Your task to perform on an android device: set the timer Image 0: 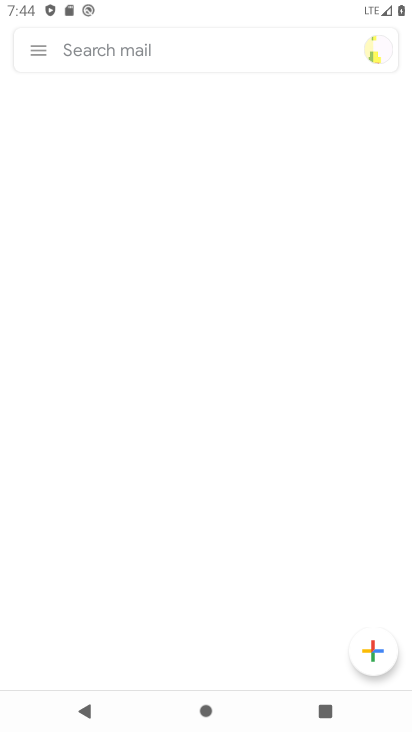
Step 0: press home button
Your task to perform on an android device: set the timer Image 1: 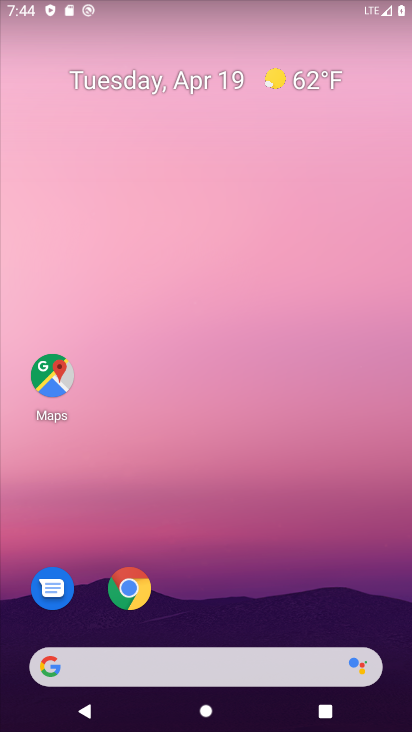
Step 1: drag from (269, 575) to (137, 55)
Your task to perform on an android device: set the timer Image 2: 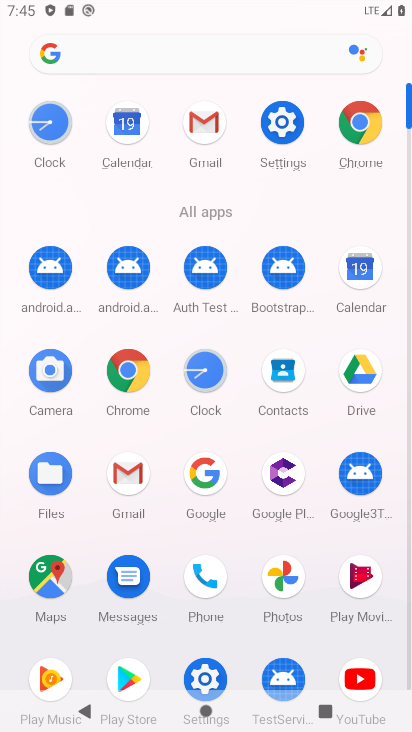
Step 2: click (204, 368)
Your task to perform on an android device: set the timer Image 3: 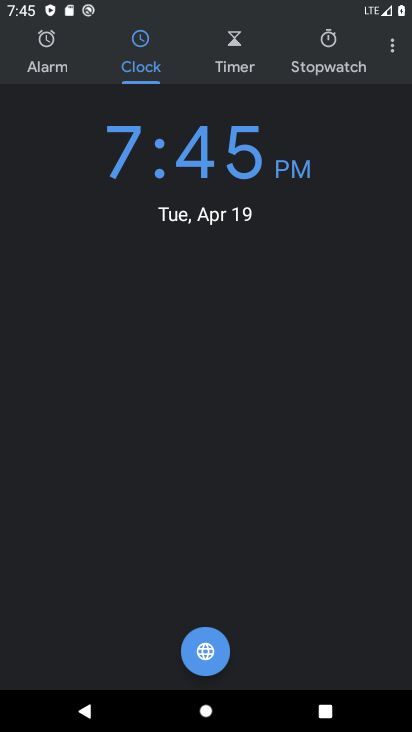
Step 3: click (233, 48)
Your task to perform on an android device: set the timer Image 4: 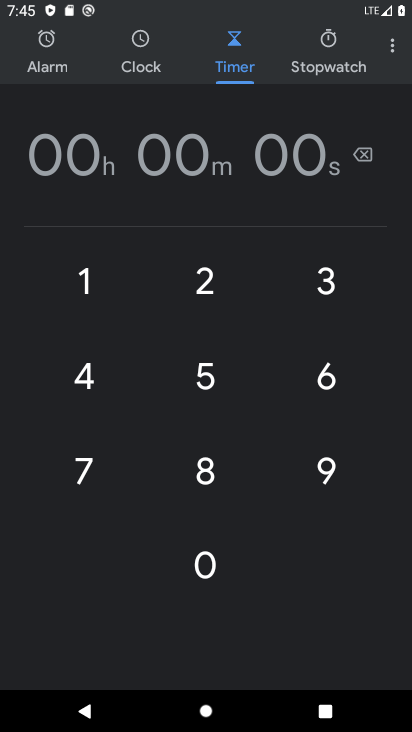
Step 4: click (207, 573)
Your task to perform on an android device: set the timer Image 5: 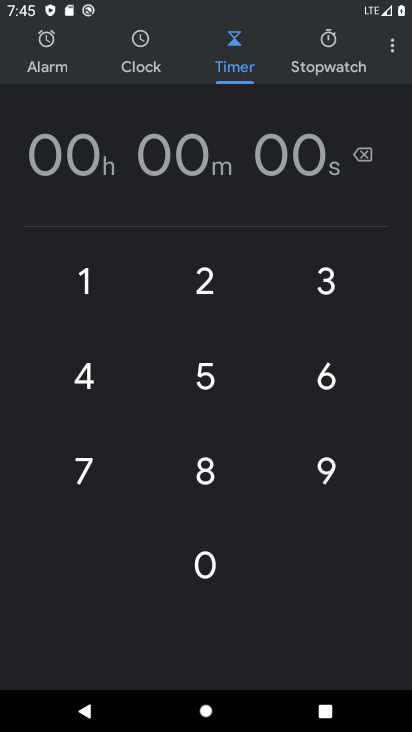
Step 5: click (85, 280)
Your task to perform on an android device: set the timer Image 6: 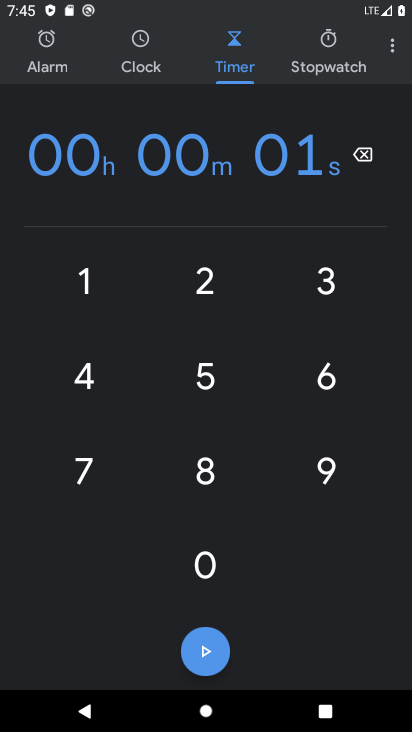
Step 6: click (85, 280)
Your task to perform on an android device: set the timer Image 7: 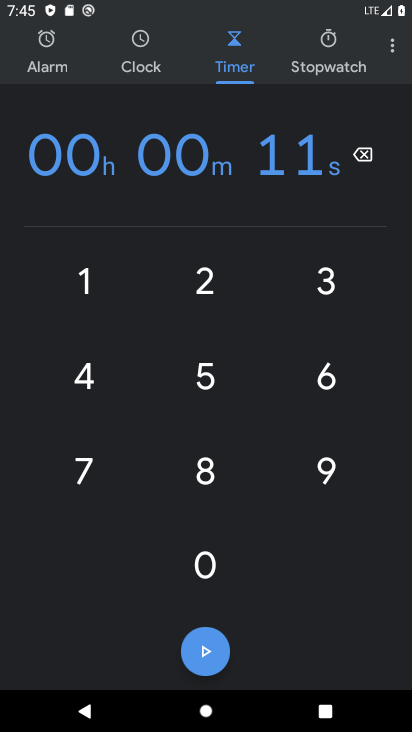
Step 7: click (85, 280)
Your task to perform on an android device: set the timer Image 8: 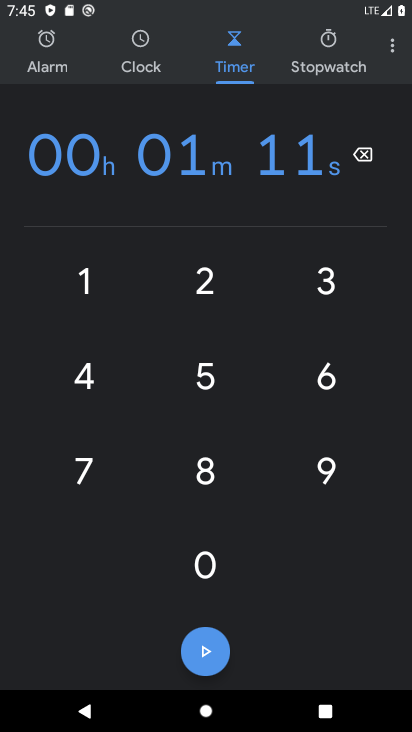
Step 8: click (85, 280)
Your task to perform on an android device: set the timer Image 9: 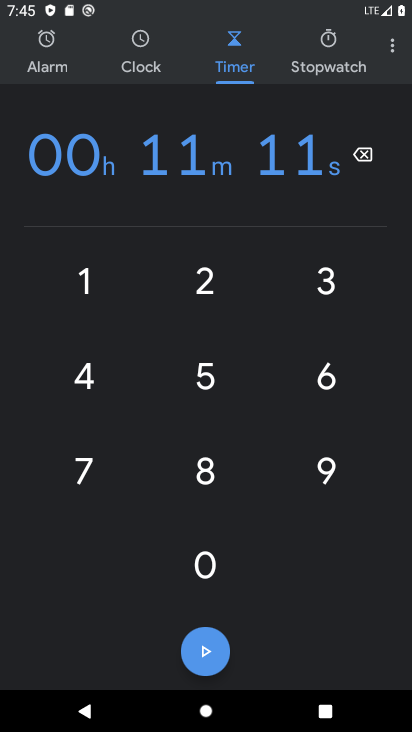
Step 9: click (85, 280)
Your task to perform on an android device: set the timer Image 10: 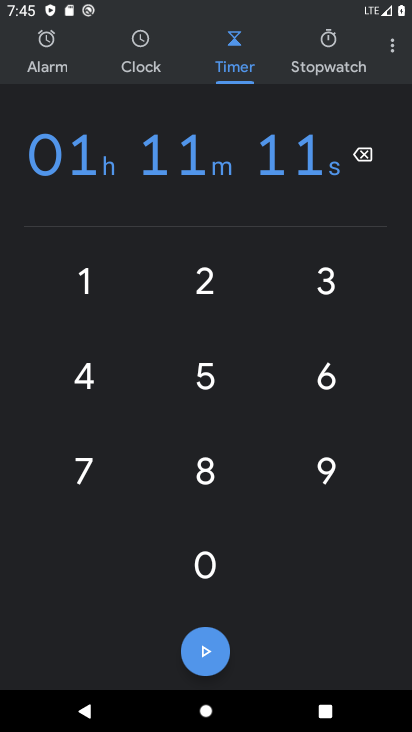
Step 10: task complete